Your task to perform on an android device: see tabs open on other devices in the chrome app Image 0: 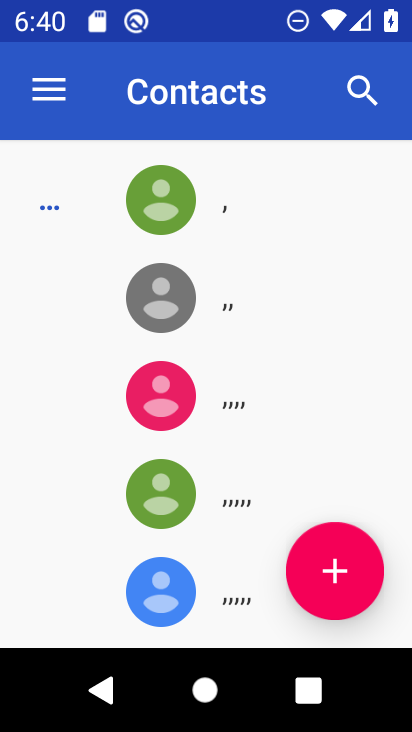
Step 0: press home button
Your task to perform on an android device: see tabs open on other devices in the chrome app Image 1: 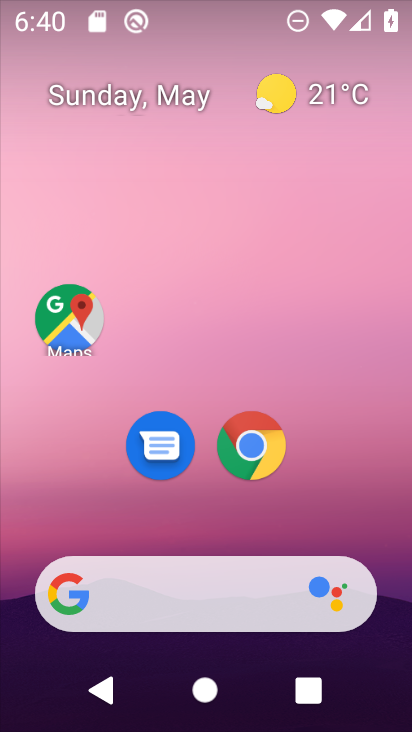
Step 1: click (251, 448)
Your task to perform on an android device: see tabs open on other devices in the chrome app Image 2: 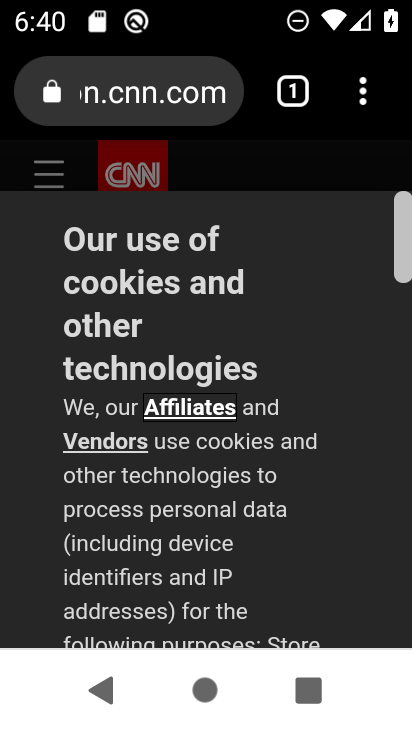
Step 2: click (362, 96)
Your task to perform on an android device: see tabs open on other devices in the chrome app Image 3: 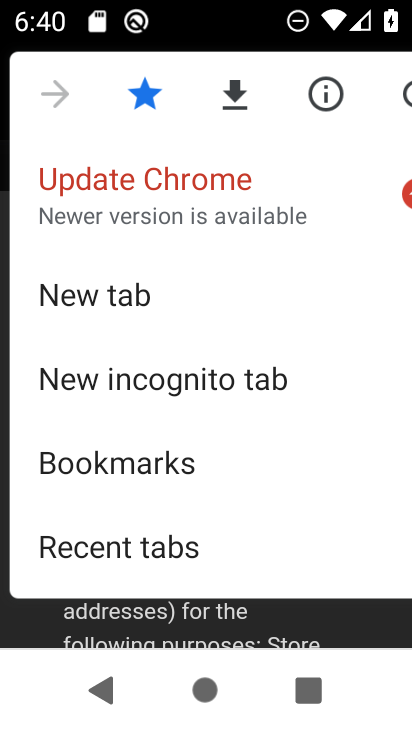
Step 3: drag from (185, 506) to (136, 335)
Your task to perform on an android device: see tabs open on other devices in the chrome app Image 4: 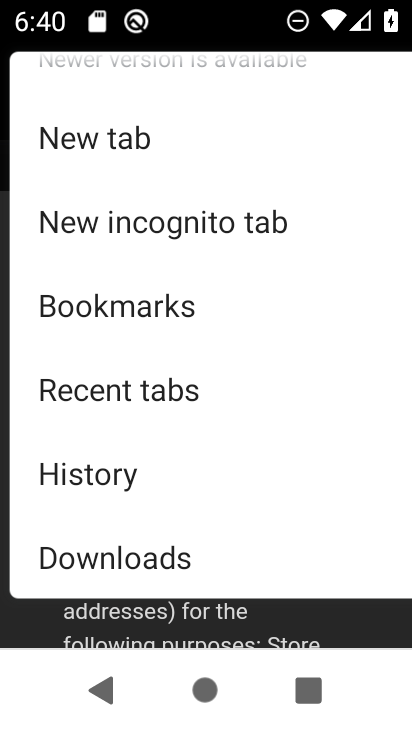
Step 4: click (121, 393)
Your task to perform on an android device: see tabs open on other devices in the chrome app Image 5: 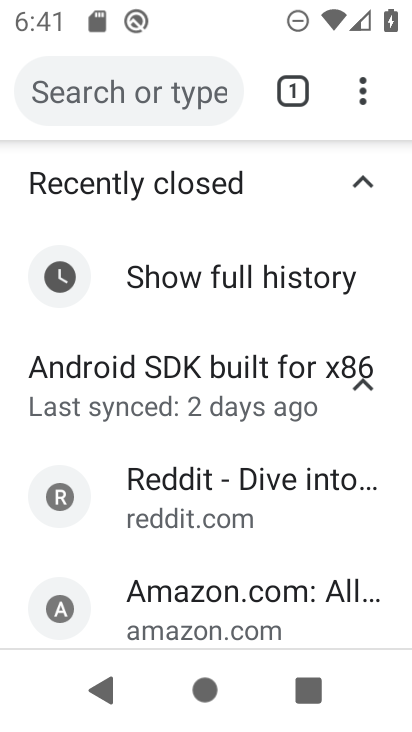
Step 5: task complete